Your task to perform on an android device: What's the weather going to be this weekend? Image 0: 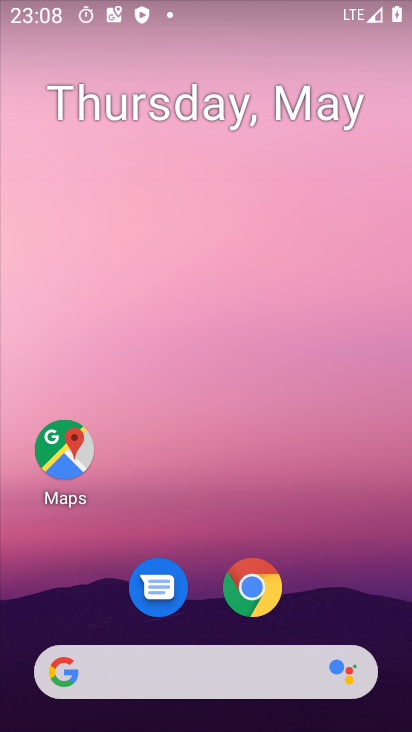
Step 0: click (96, 671)
Your task to perform on an android device: What's the weather going to be this weekend? Image 1: 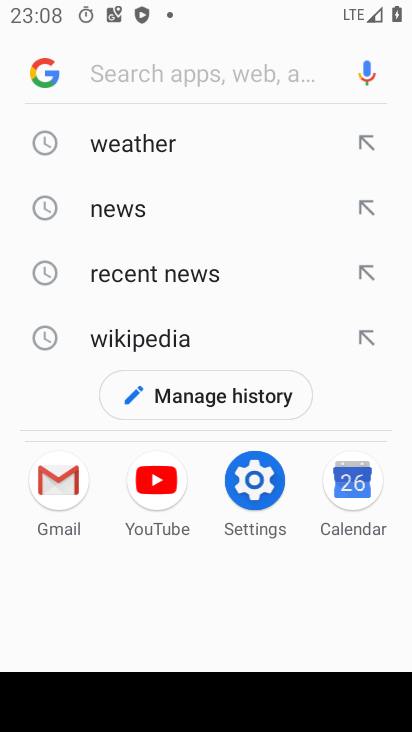
Step 1: click (111, 151)
Your task to perform on an android device: What's the weather going to be this weekend? Image 2: 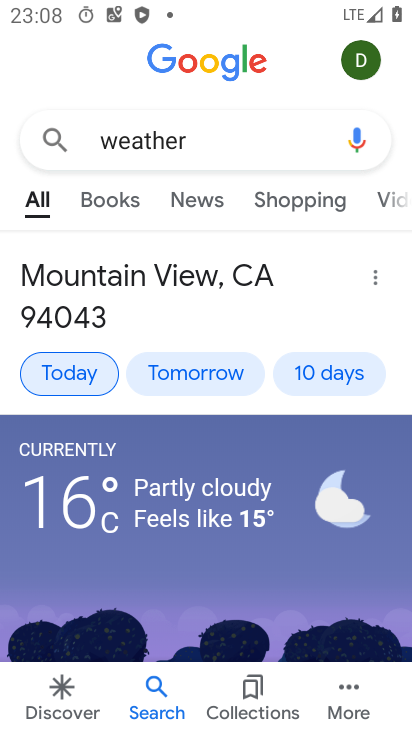
Step 2: click (333, 378)
Your task to perform on an android device: What's the weather going to be this weekend? Image 3: 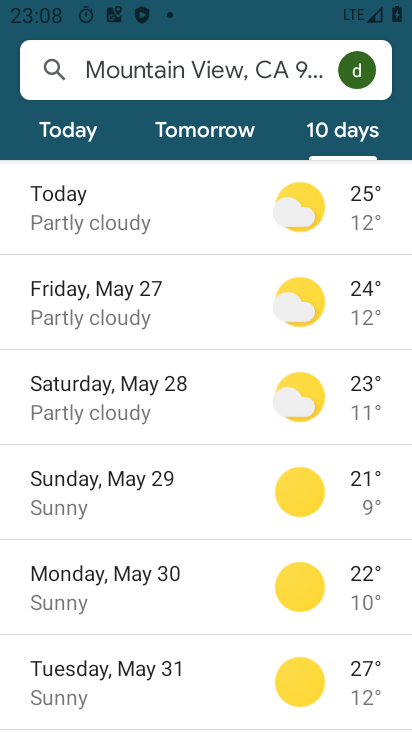
Step 3: task complete